Your task to perform on an android device: Search for seafood restaurants on Google Maps Image 0: 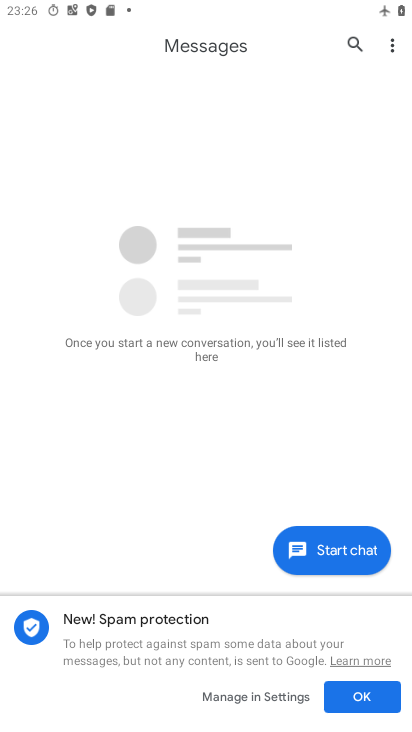
Step 0: press home button
Your task to perform on an android device: Search for seafood restaurants on Google Maps Image 1: 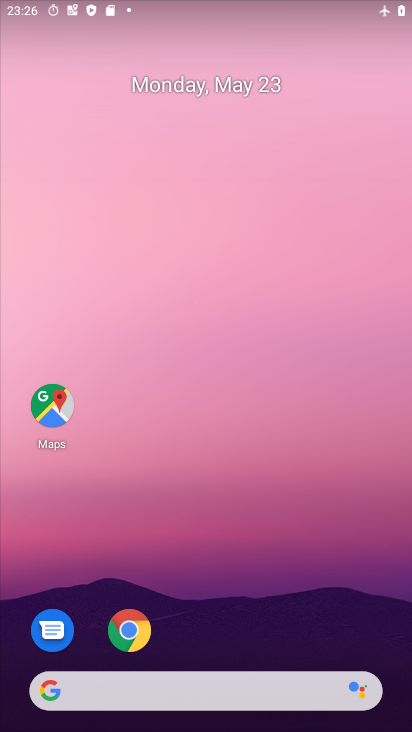
Step 1: click (56, 408)
Your task to perform on an android device: Search for seafood restaurants on Google Maps Image 2: 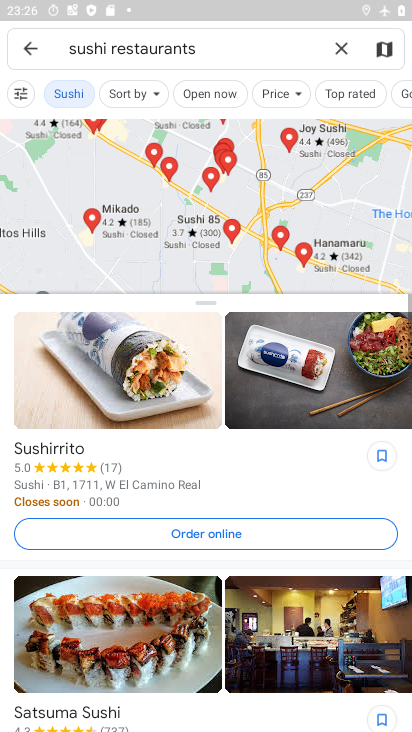
Step 2: click (346, 52)
Your task to perform on an android device: Search for seafood restaurants on Google Maps Image 3: 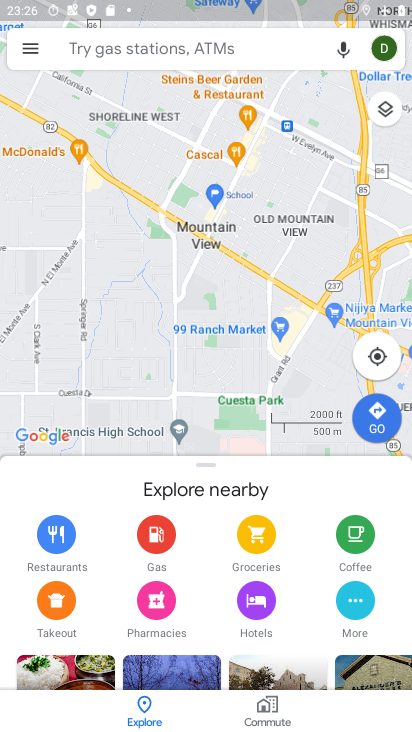
Step 3: click (103, 47)
Your task to perform on an android device: Search for seafood restaurants on Google Maps Image 4: 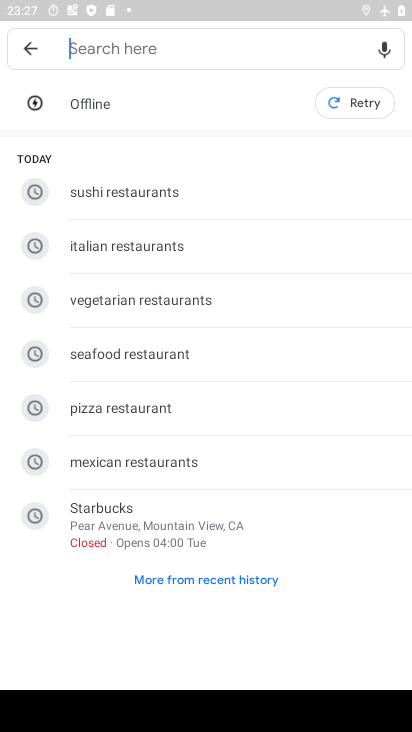
Step 4: type "seafood restaurants"
Your task to perform on an android device: Search for seafood restaurants on Google Maps Image 5: 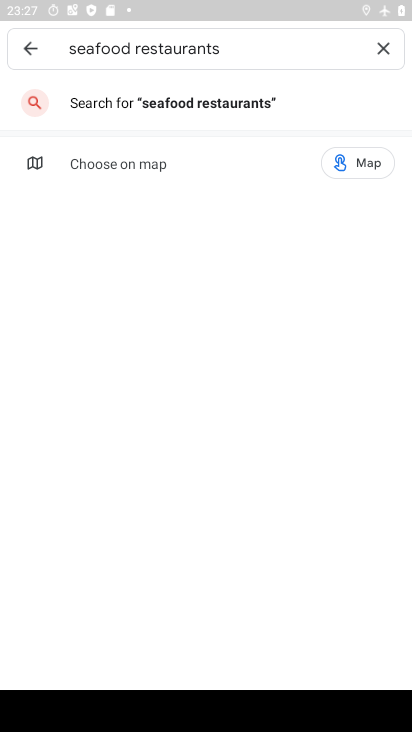
Step 5: click (190, 108)
Your task to perform on an android device: Search for seafood restaurants on Google Maps Image 6: 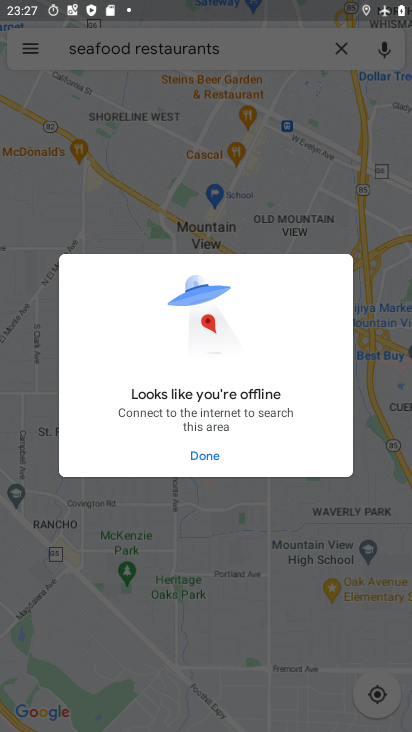
Step 6: task complete